Your task to perform on an android device: Turn off the flashlight Image 0: 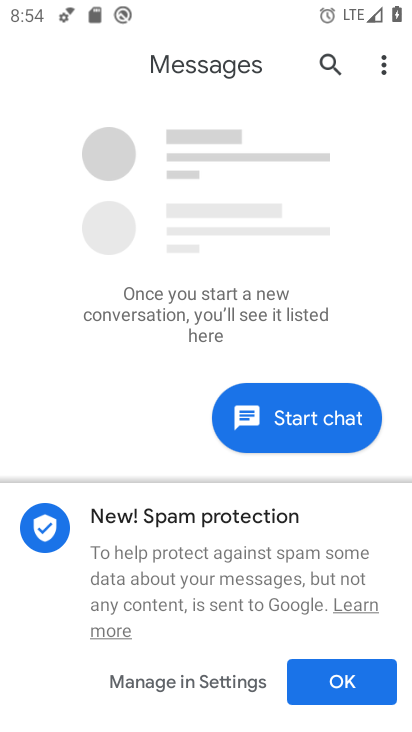
Step 0: press home button
Your task to perform on an android device: Turn off the flashlight Image 1: 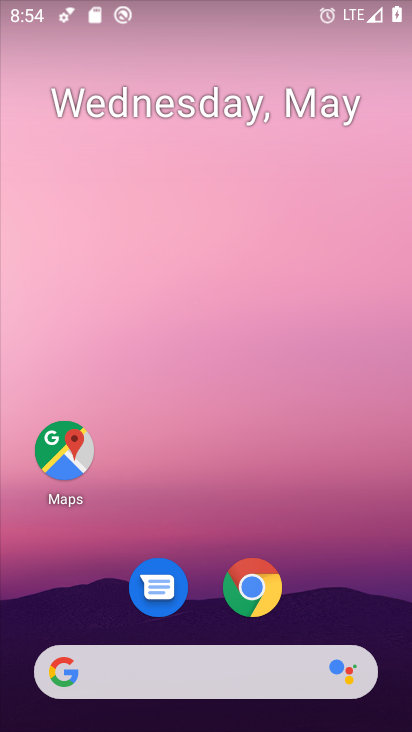
Step 1: drag from (188, 571) to (213, 143)
Your task to perform on an android device: Turn off the flashlight Image 2: 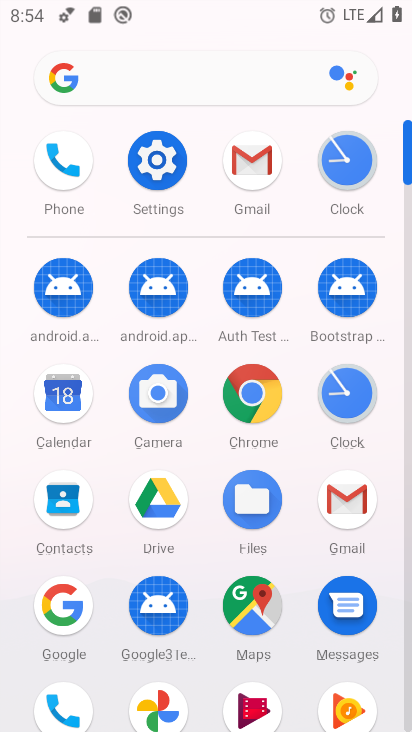
Step 2: click (171, 171)
Your task to perform on an android device: Turn off the flashlight Image 3: 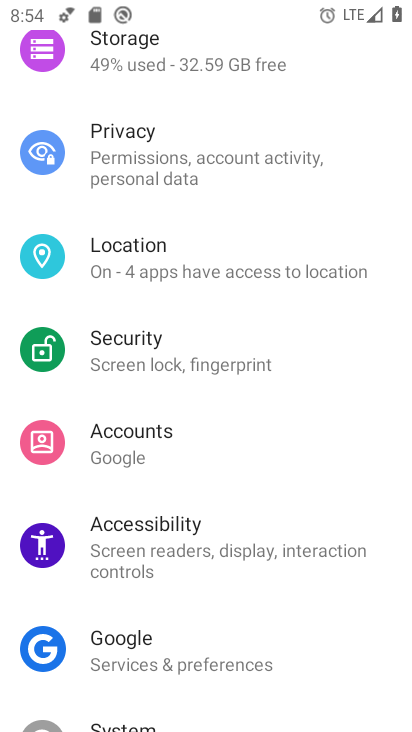
Step 3: drag from (181, 161) to (137, 500)
Your task to perform on an android device: Turn off the flashlight Image 4: 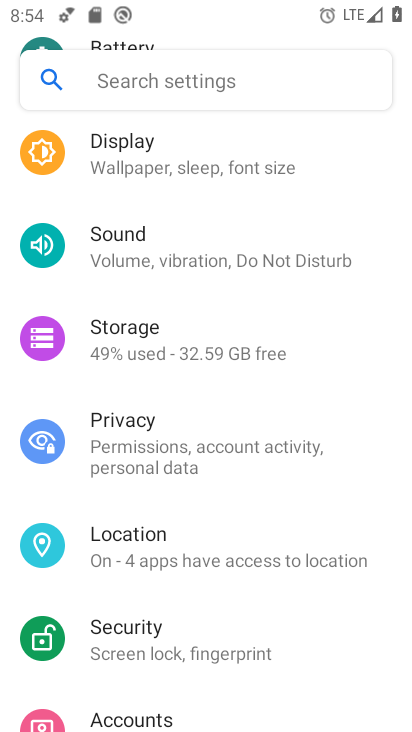
Step 4: click (175, 80)
Your task to perform on an android device: Turn off the flashlight Image 5: 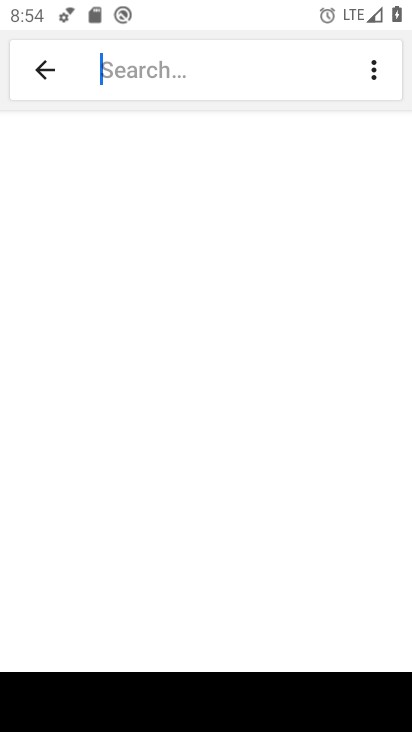
Step 5: type "flashlight"
Your task to perform on an android device: Turn off the flashlight Image 6: 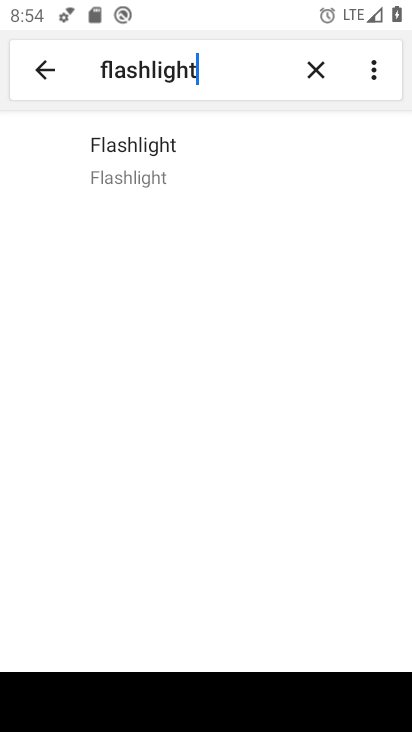
Step 6: click (159, 165)
Your task to perform on an android device: Turn off the flashlight Image 7: 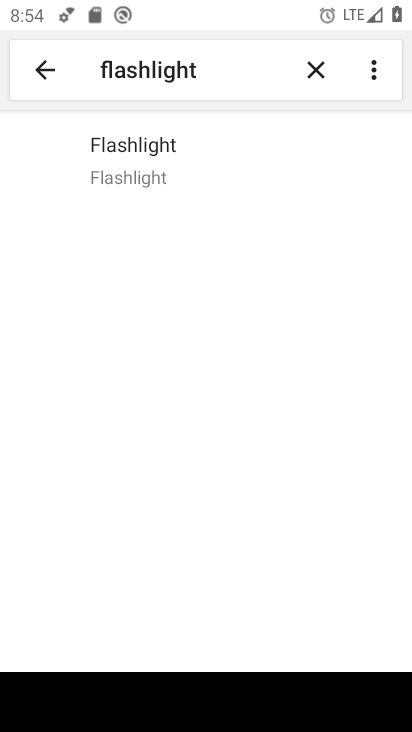
Step 7: click (144, 171)
Your task to perform on an android device: Turn off the flashlight Image 8: 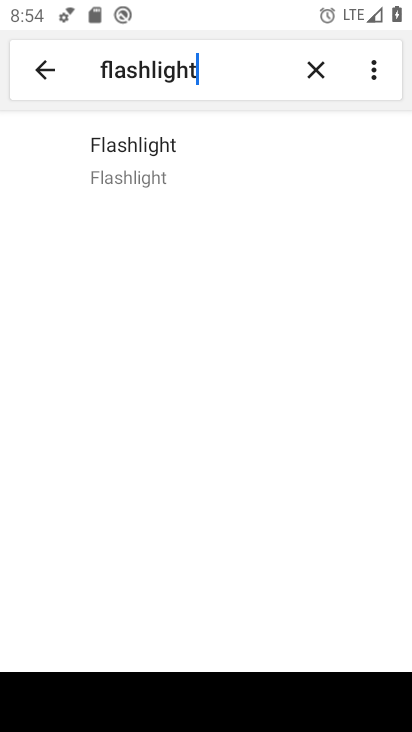
Step 8: task complete